Your task to perform on an android device: toggle notification dots Image 0: 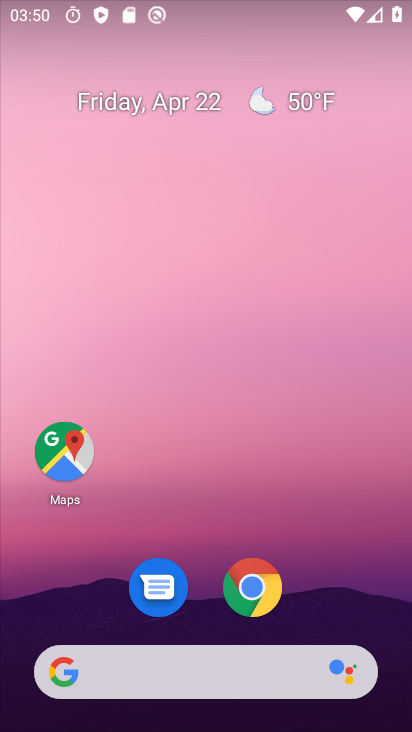
Step 0: drag from (361, 635) to (334, 60)
Your task to perform on an android device: toggle notification dots Image 1: 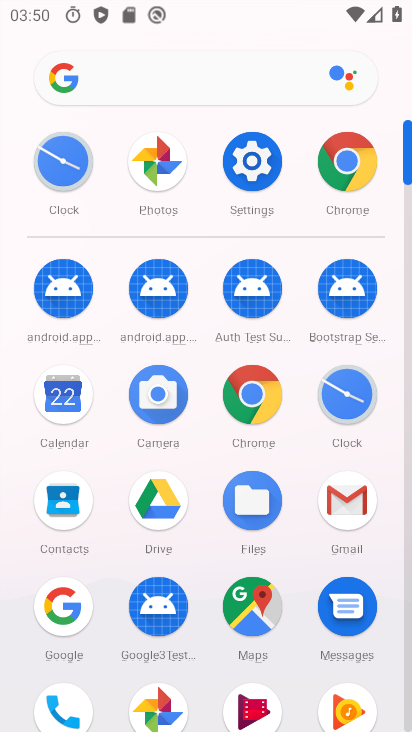
Step 1: click (257, 171)
Your task to perform on an android device: toggle notification dots Image 2: 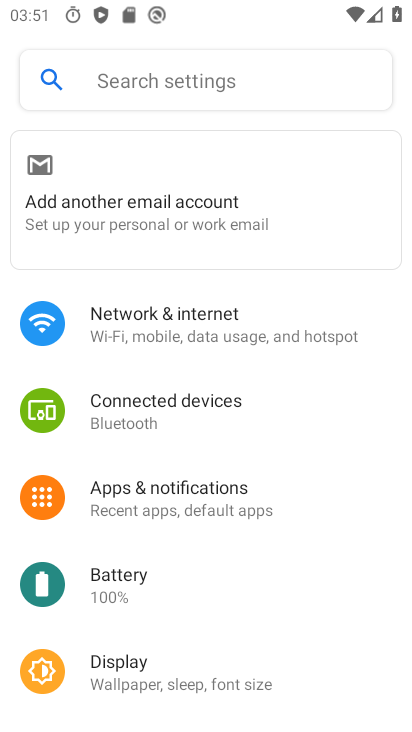
Step 2: click (171, 514)
Your task to perform on an android device: toggle notification dots Image 3: 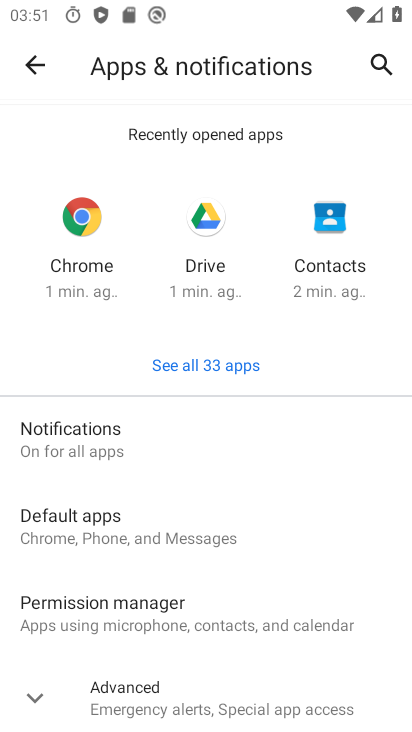
Step 3: click (65, 451)
Your task to perform on an android device: toggle notification dots Image 4: 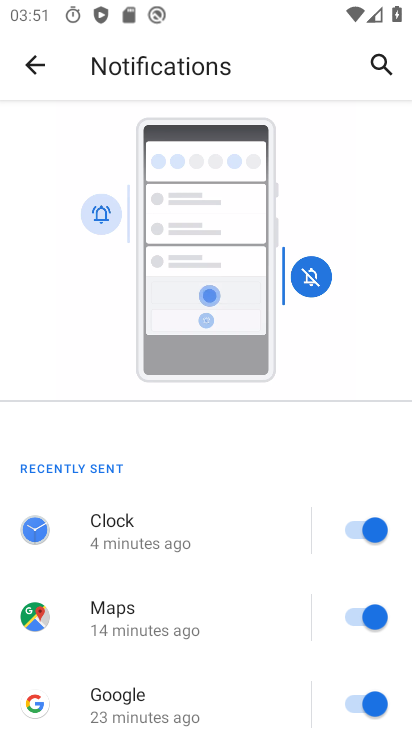
Step 4: drag from (234, 672) to (226, 215)
Your task to perform on an android device: toggle notification dots Image 5: 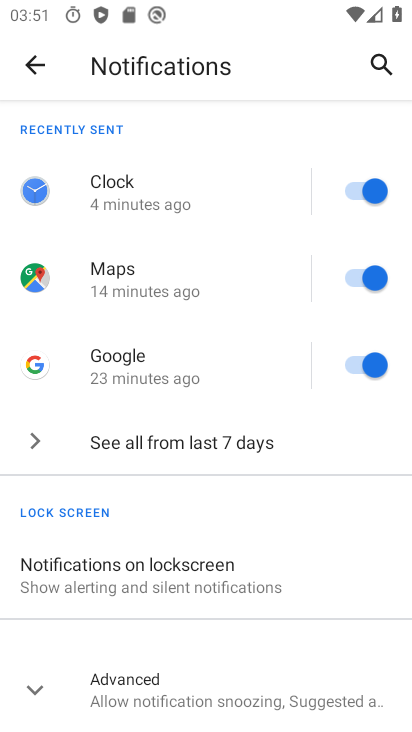
Step 5: drag from (177, 571) to (192, 333)
Your task to perform on an android device: toggle notification dots Image 6: 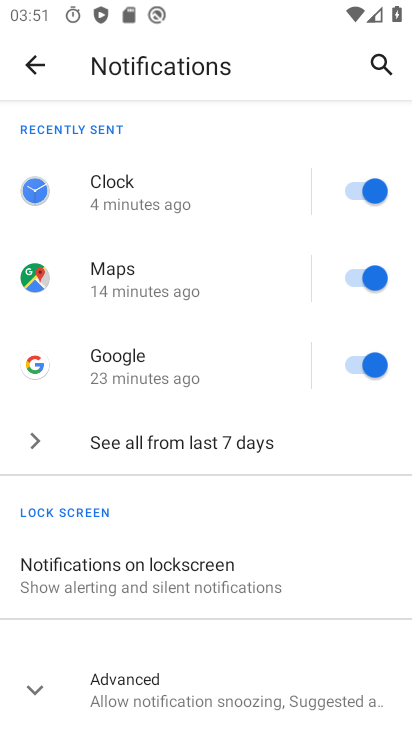
Step 6: click (32, 701)
Your task to perform on an android device: toggle notification dots Image 7: 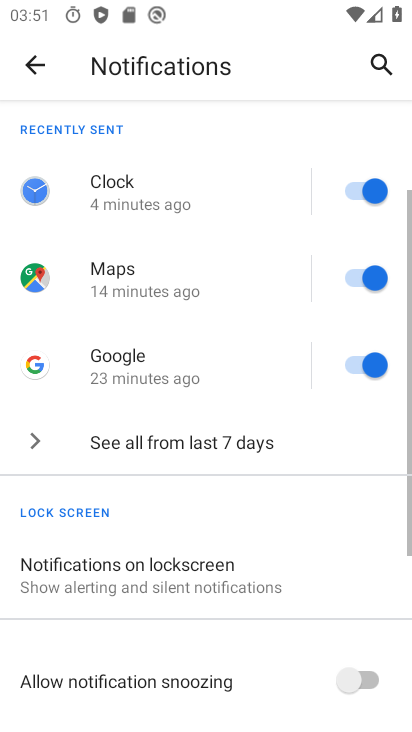
Step 7: drag from (178, 708) to (184, 226)
Your task to perform on an android device: toggle notification dots Image 8: 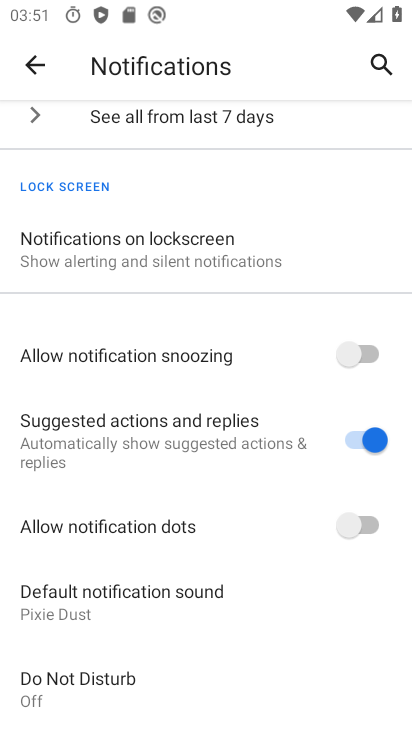
Step 8: click (361, 527)
Your task to perform on an android device: toggle notification dots Image 9: 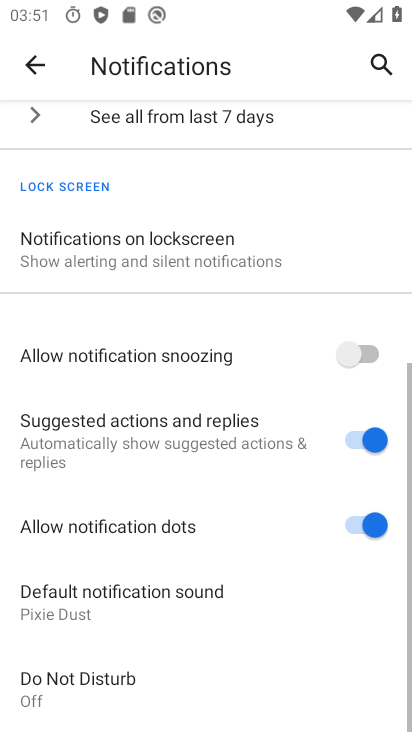
Step 9: task complete